Your task to perform on an android device: Open Android settings Image 0: 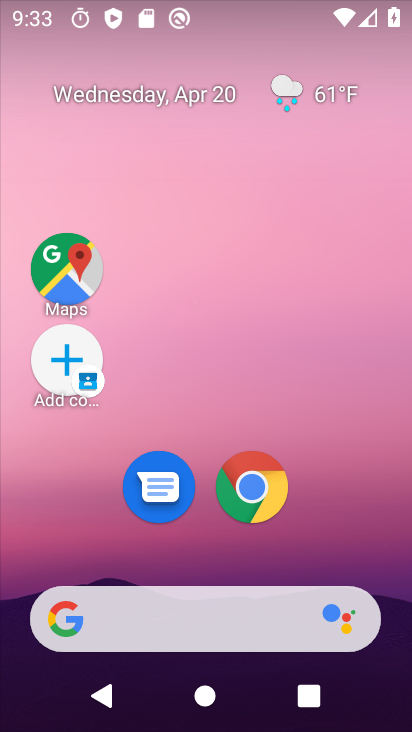
Step 0: drag from (332, 548) to (238, 124)
Your task to perform on an android device: Open Android settings Image 1: 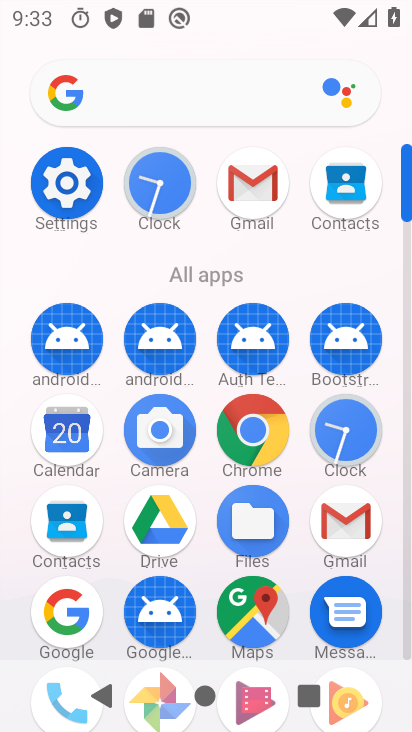
Step 1: click (63, 197)
Your task to perform on an android device: Open Android settings Image 2: 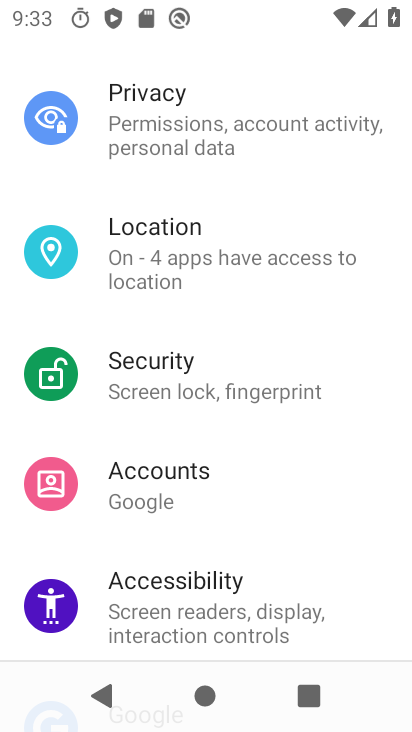
Step 2: drag from (177, 540) to (154, 469)
Your task to perform on an android device: Open Android settings Image 3: 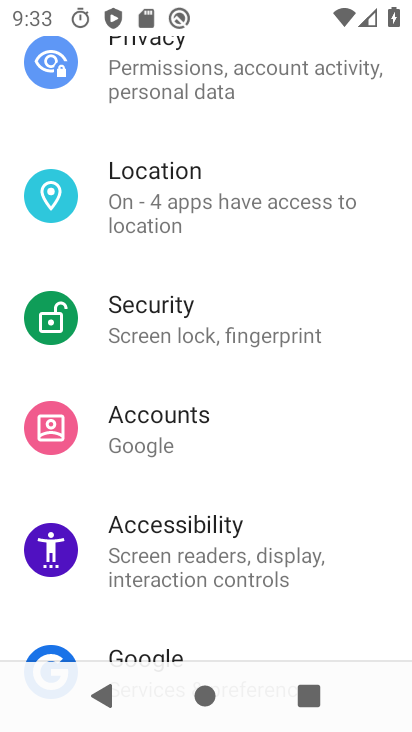
Step 3: drag from (178, 564) to (163, 486)
Your task to perform on an android device: Open Android settings Image 4: 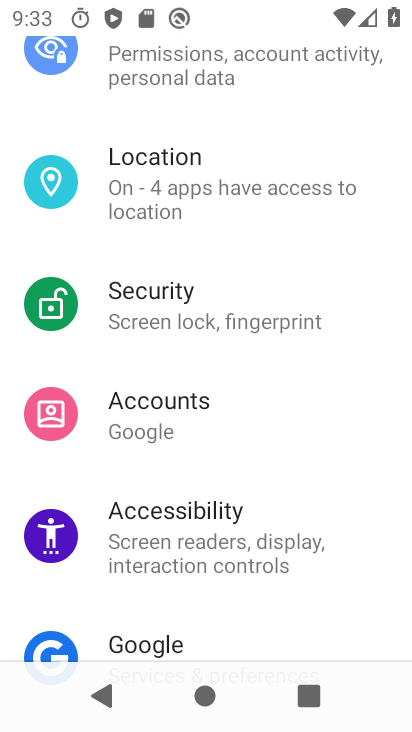
Step 4: drag from (166, 554) to (147, 483)
Your task to perform on an android device: Open Android settings Image 5: 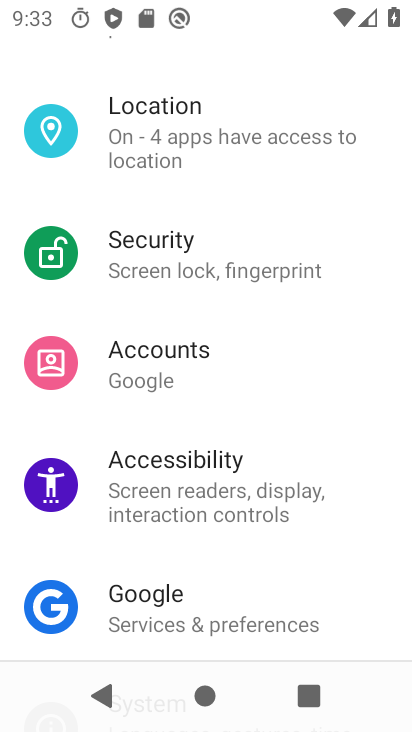
Step 5: drag from (166, 562) to (157, 461)
Your task to perform on an android device: Open Android settings Image 6: 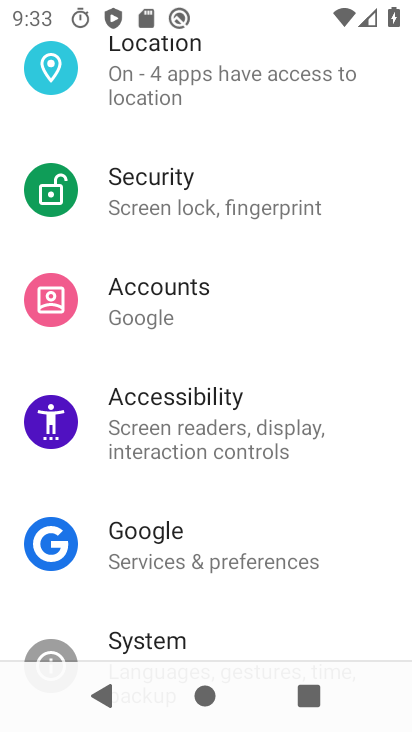
Step 6: drag from (163, 524) to (152, 399)
Your task to perform on an android device: Open Android settings Image 7: 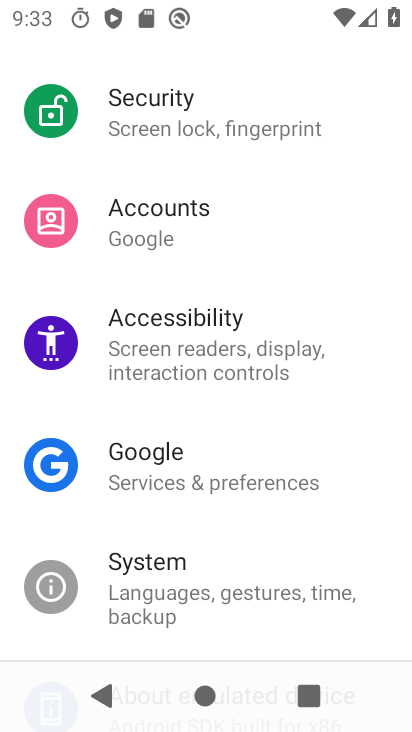
Step 7: click (169, 569)
Your task to perform on an android device: Open Android settings Image 8: 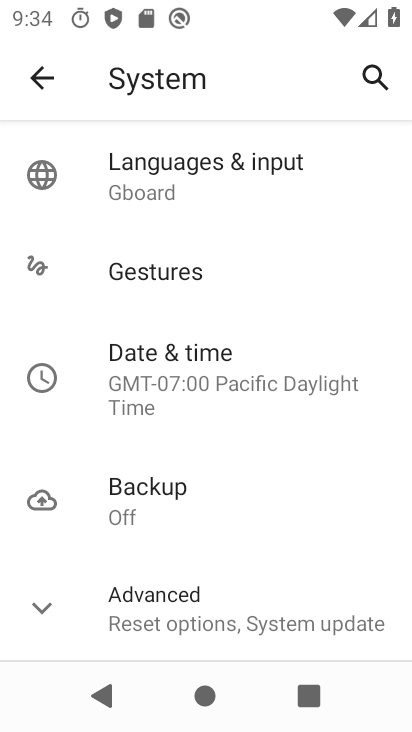
Step 8: task complete